Your task to perform on an android device: turn pop-ups off in chrome Image 0: 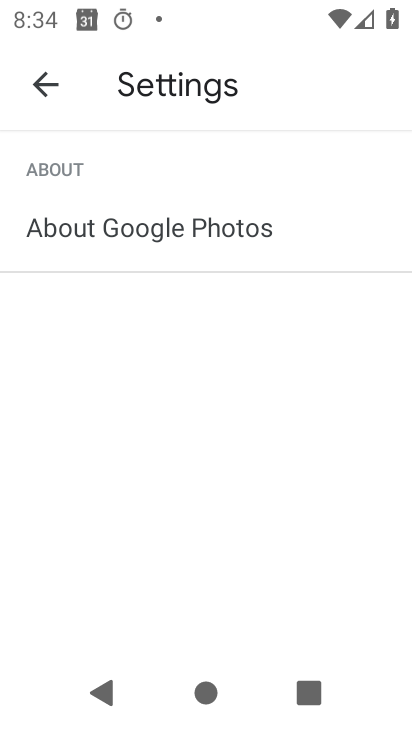
Step 0: press home button
Your task to perform on an android device: turn pop-ups off in chrome Image 1: 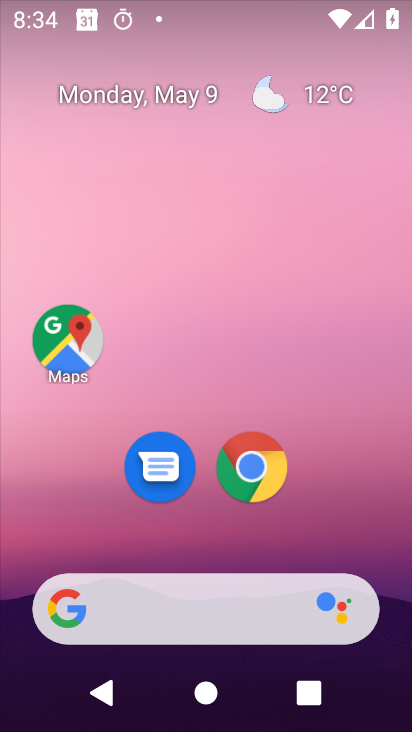
Step 1: click (257, 470)
Your task to perform on an android device: turn pop-ups off in chrome Image 2: 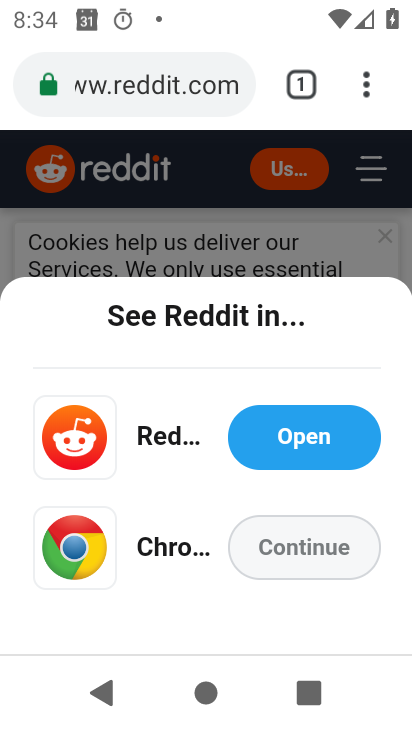
Step 2: click (366, 83)
Your task to perform on an android device: turn pop-ups off in chrome Image 3: 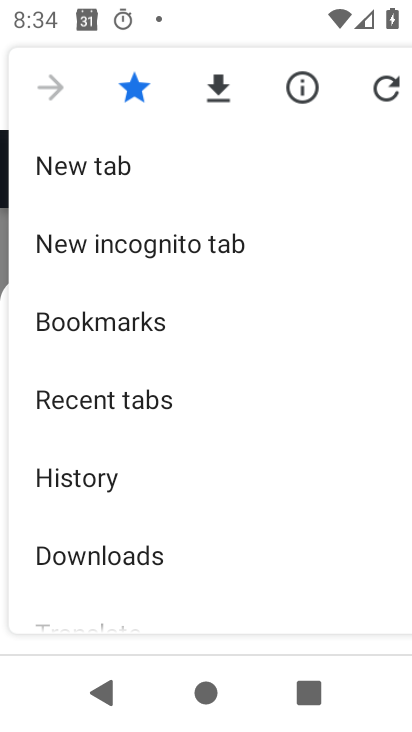
Step 3: drag from (260, 551) to (230, 224)
Your task to perform on an android device: turn pop-ups off in chrome Image 4: 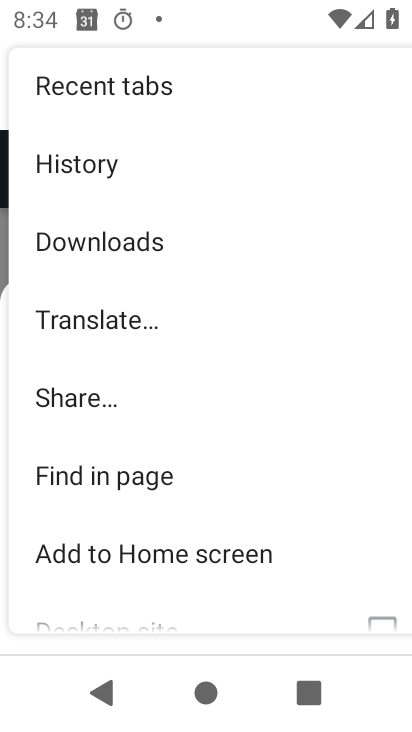
Step 4: drag from (248, 515) to (229, 169)
Your task to perform on an android device: turn pop-ups off in chrome Image 5: 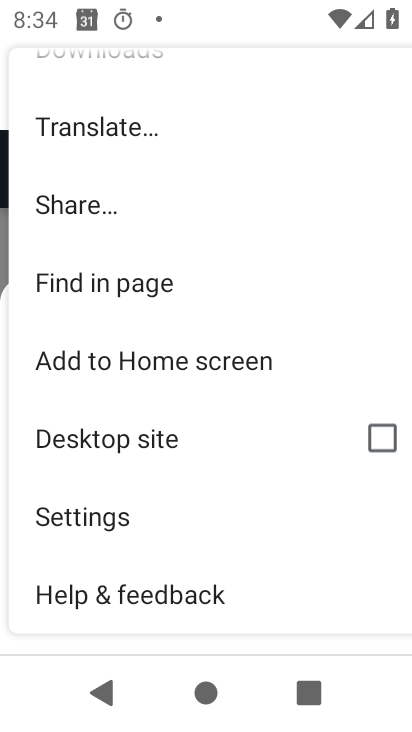
Step 5: click (105, 513)
Your task to perform on an android device: turn pop-ups off in chrome Image 6: 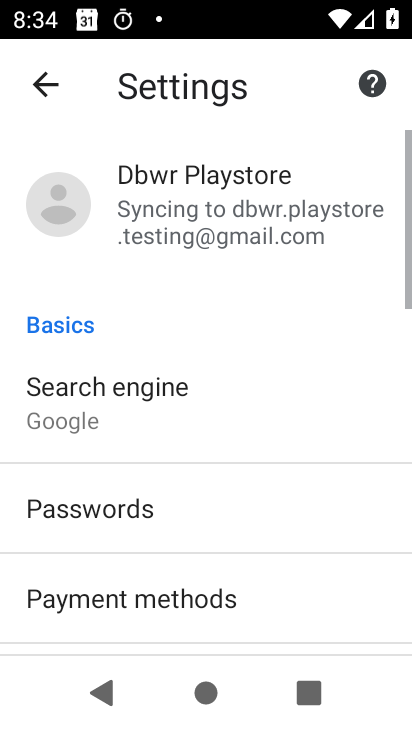
Step 6: drag from (263, 535) to (258, 143)
Your task to perform on an android device: turn pop-ups off in chrome Image 7: 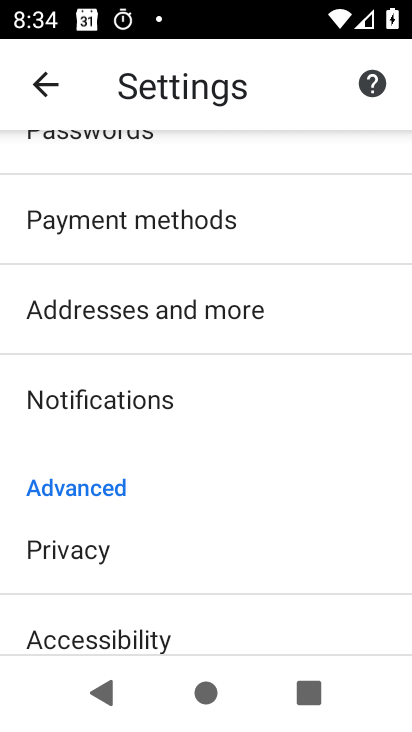
Step 7: drag from (213, 475) to (196, 135)
Your task to perform on an android device: turn pop-ups off in chrome Image 8: 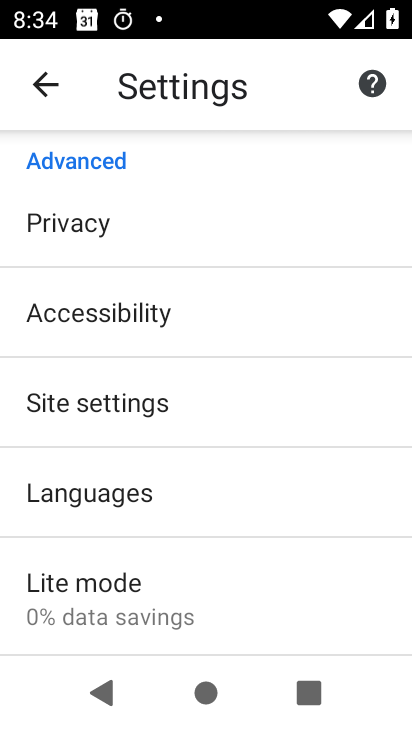
Step 8: click (128, 404)
Your task to perform on an android device: turn pop-ups off in chrome Image 9: 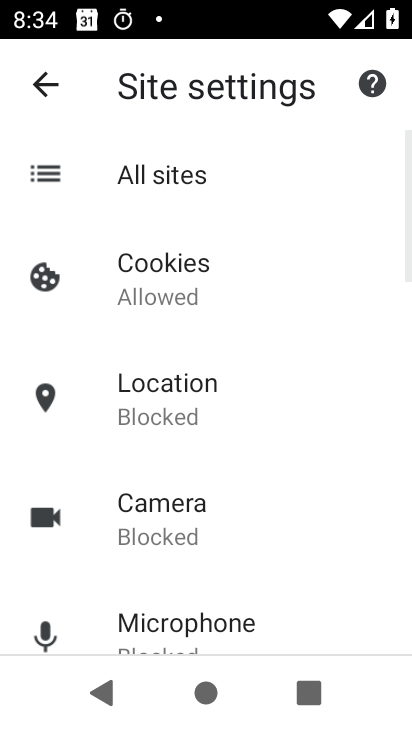
Step 9: drag from (246, 574) to (263, 182)
Your task to perform on an android device: turn pop-ups off in chrome Image 10: 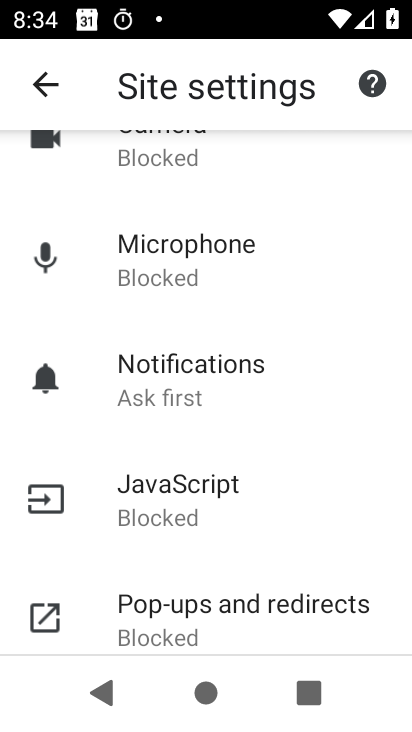
Step 10: drag from (261, 498) to (263, 281)
Your task to perform on an android device: turn pop-ups off in chrome Image 11: 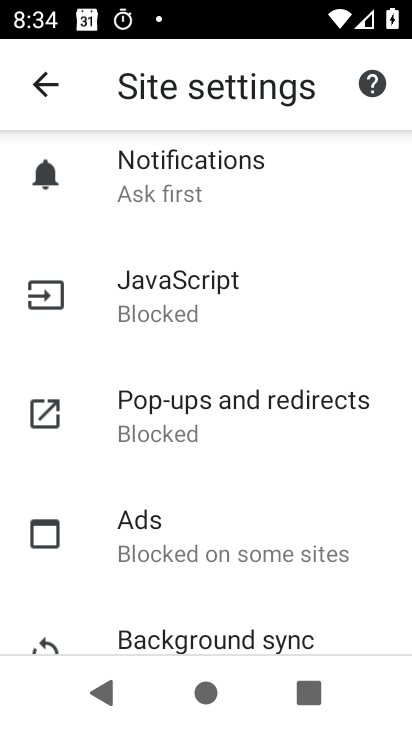
Step 11: click (186, 422)
Your task to perform on an android device: turn pop-ups off in chrome Image 12: 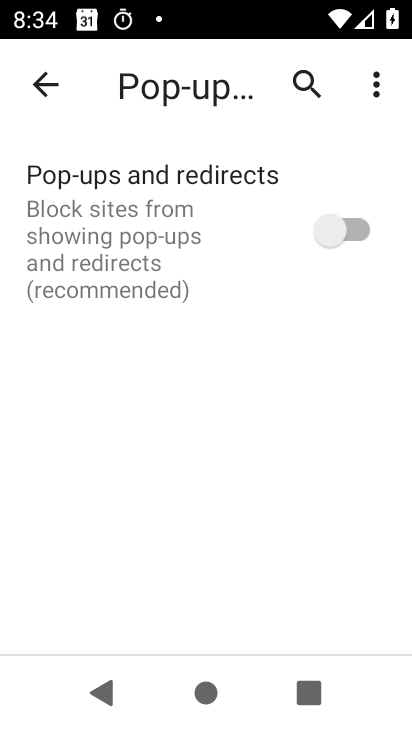
Step 12: task complete